Your task to perform on an android device: Go to Reddit.com Image 0: 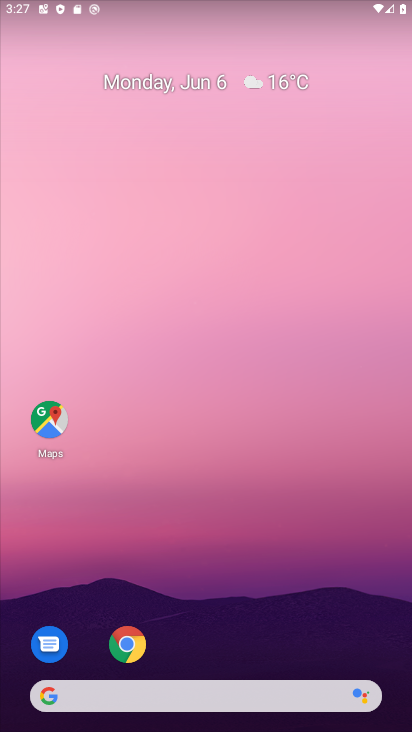
Step 0: drag from (280, 561) to (147, 3)
Your task to perform on an android device: Go to Reddit.com Image 1: 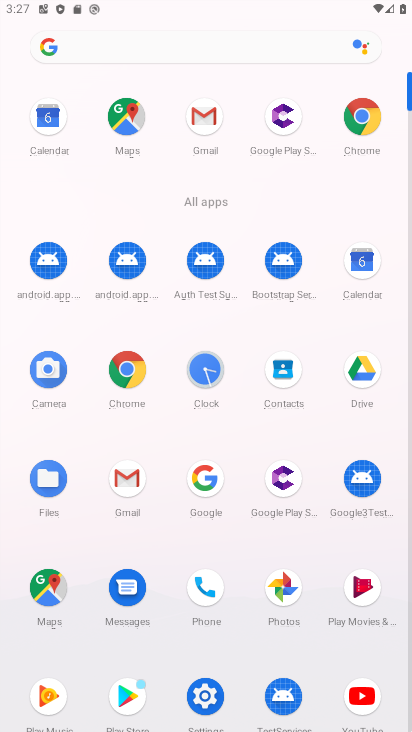
Step 1: click (125, 370)
Your task to perform on an android device: Go to Reddit.com Image 2: 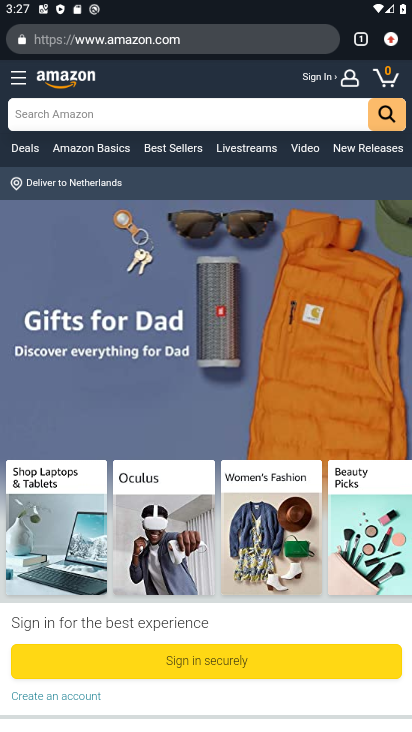
Step 2: click (152, 30)
Your task to perform on an android device: Go to Reddit.com Image 3: 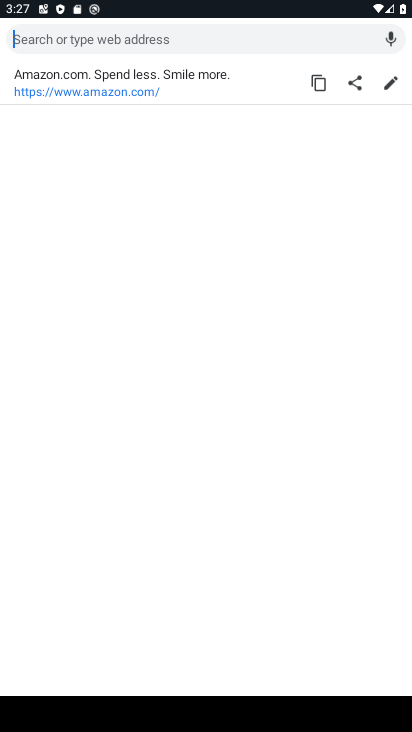
Step 3: type " Reddit.com"
Your task to perform on an android device: Go to Reddit.com Image 4: 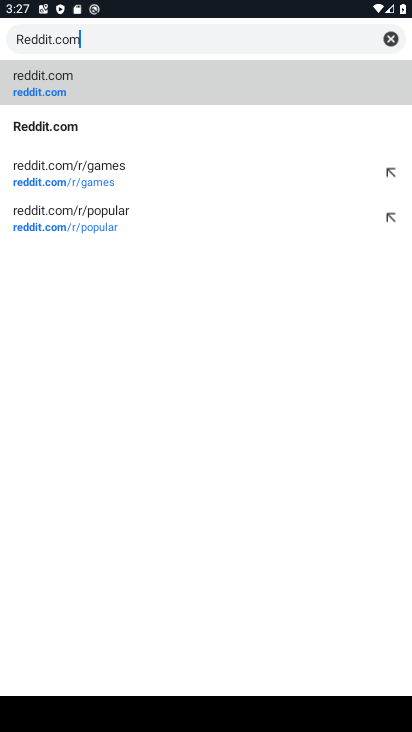
Step 4: type ""
Your task to perform on an android device: Go to Reddit.com Image 5: 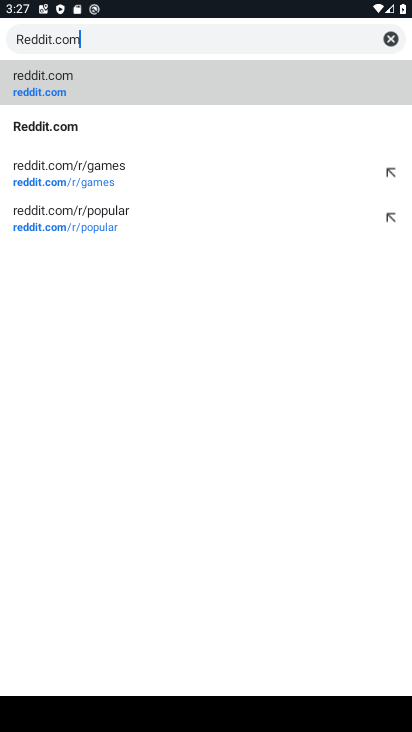
Step 5: click (78, 82)
Your task to perform on an android device: Go to Reddit.com Image 6: 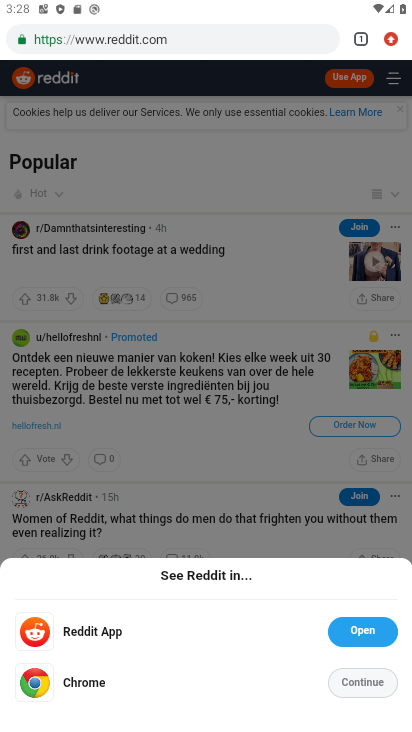
Step 6: task complete